Your task to perform on an android device: What's the weather today? Image 0: 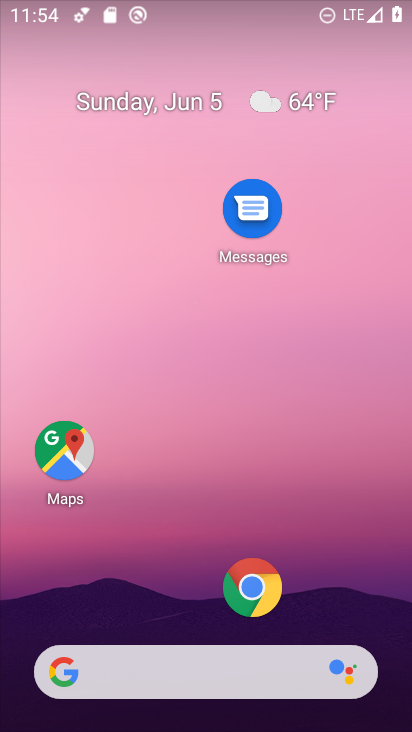
Step 0: click (307, 99)
Your task to perform on an android device: What's the weather today? Image 1: 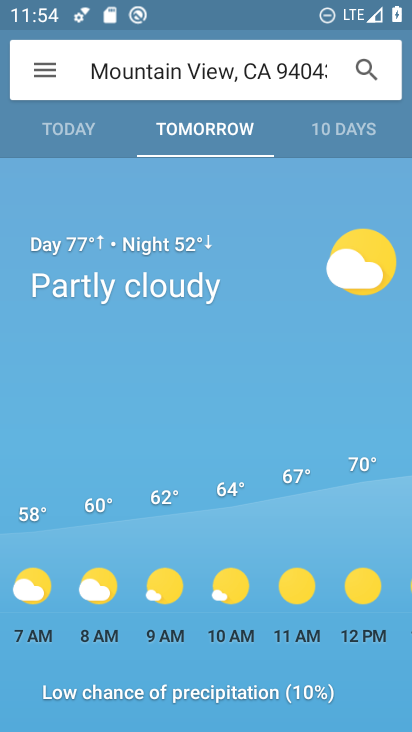
Step 1: click (65, 125)
Your task to perform on an android device: What's the weather today? Image 2: 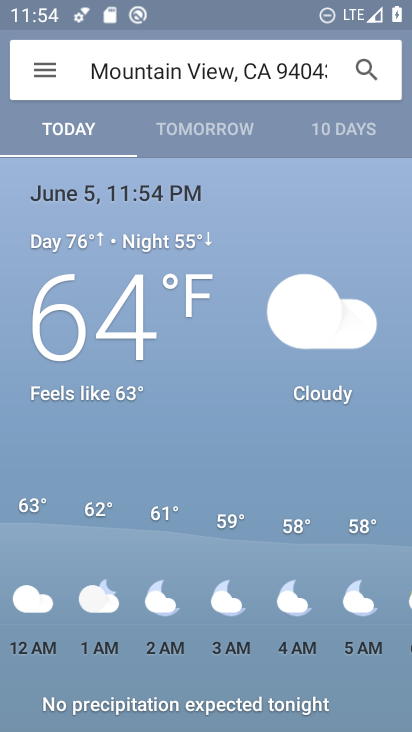
Step 2: task complete